Your task to perform on an android device: Do I have any events this weekend? Image 0: 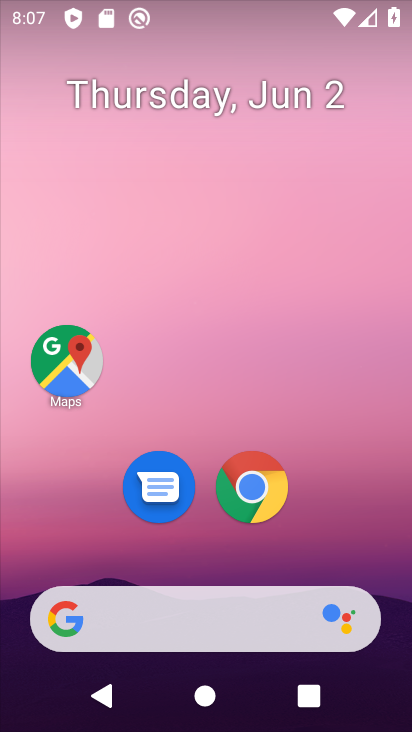
Step 0: drag from (322, 599) to (408, 108)
Your task to perform on an android device: Do I have any events this weekend? Image 1: 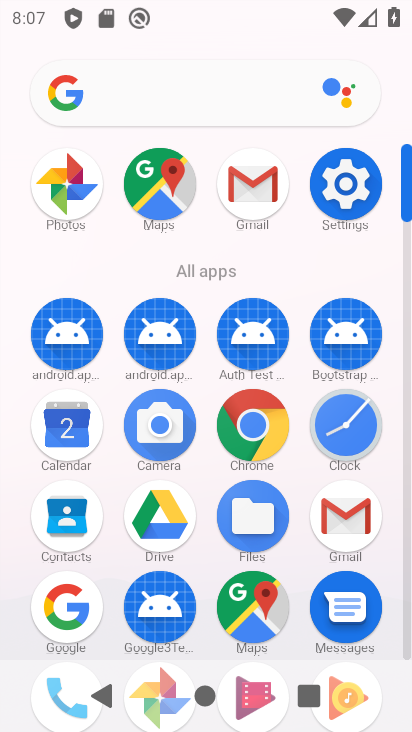
Step 1: click (70, 437)
Your task to perform on an android device: Do I have any events this weekend? Image 2: 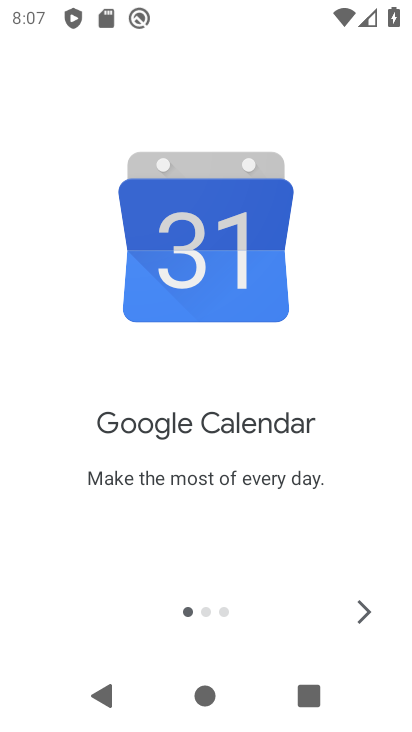
Step 2: click (367, 611)
Your task to perform on an android device: Do I have any events this weekend? Image 3: 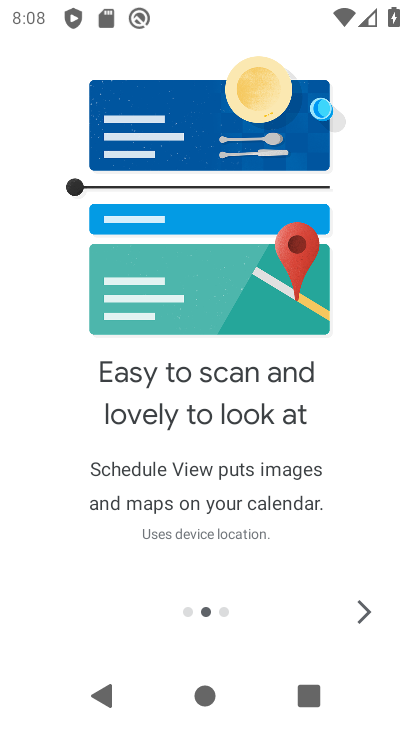
Step 3: click (361, 612)
Your task to perform on an android device: Do I have any events this weekend? Image 4: 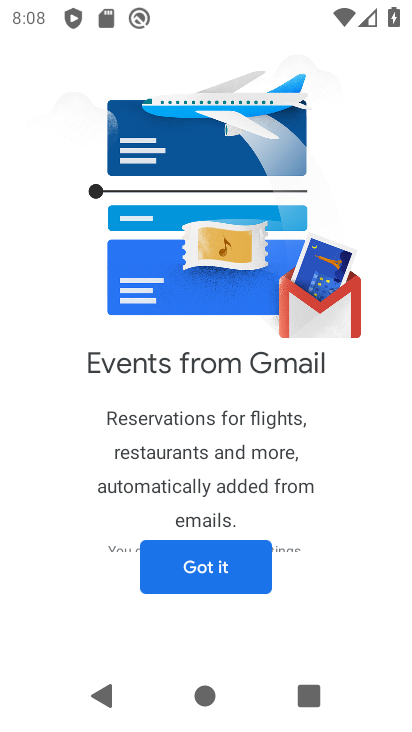
Step 4: click (361, 612)
Your task to perform on an android device: Do I have any events this weekend? Image 5: 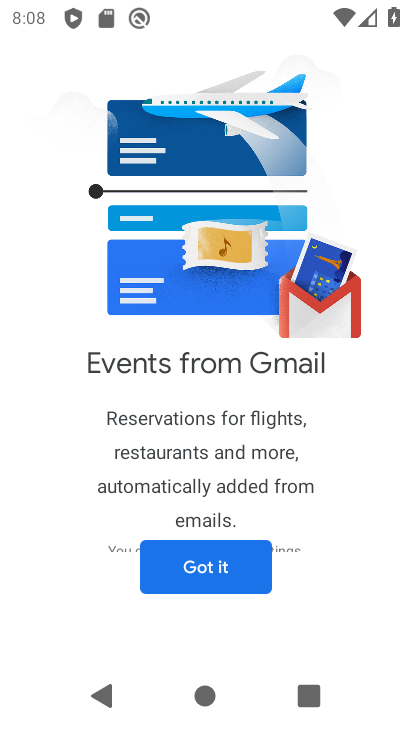
Step 5: click (233, 578)
Your task to perform on an android device: Do I have any events this weekend? Image 6: 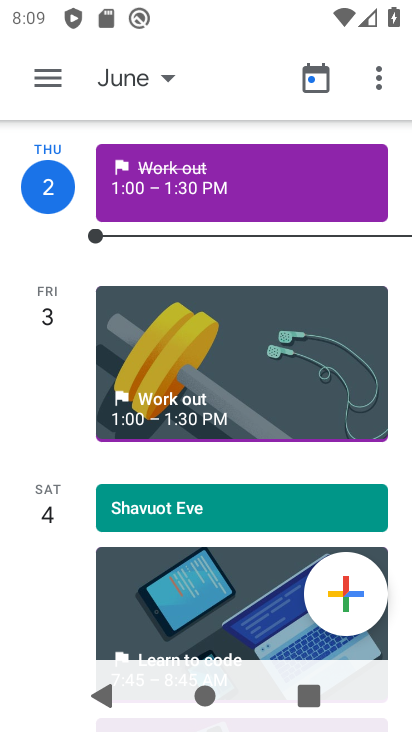
Step 6: click (163, 80)
Your task to perform on an android device: Do I have any events this weekend? Image 7: 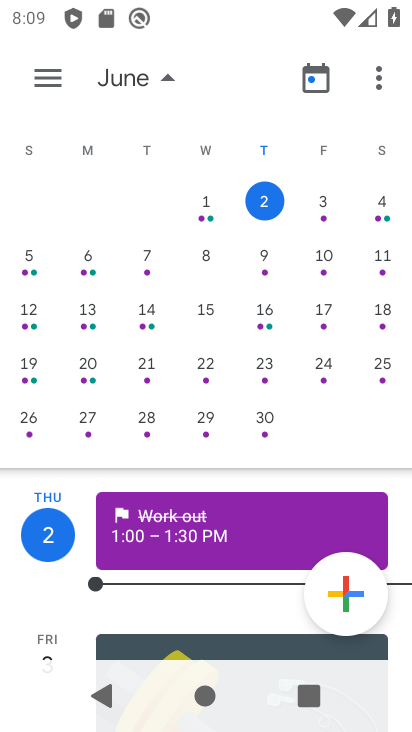
Step 7: click (397, 202)
Your task to perform on an android device: Do I have any events this weekend? Image 8: 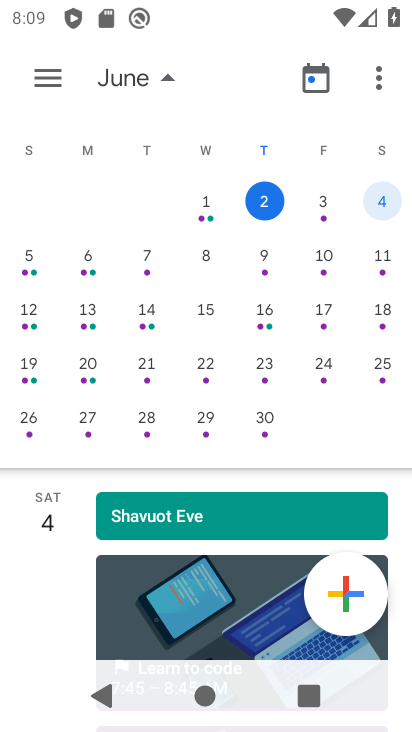
Step 8: task complete